Your task to perform on an android device: turn off sleep mode Image 0: 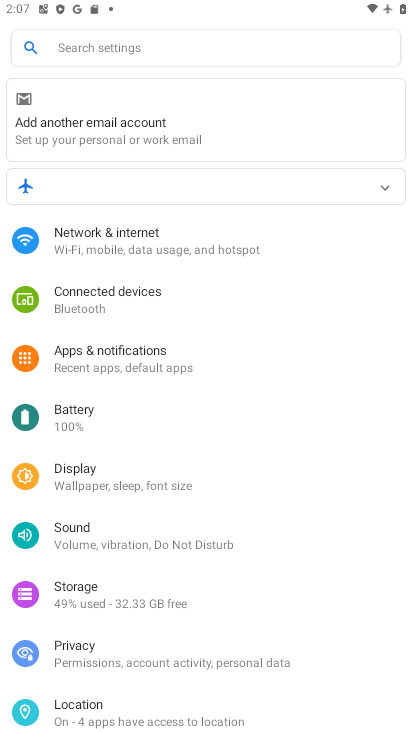
Step 0: press home button
Your task to perform on an android device: turn off sleep mode Image 1: 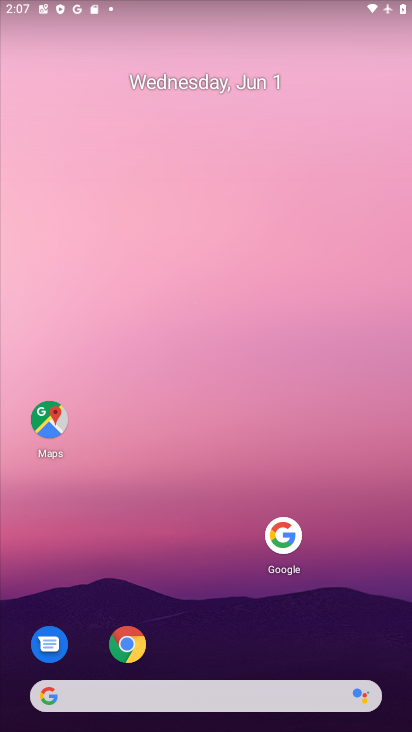
Step 1: drag from (164, 693) to (300, 106)
Your task to perform on an android device: turn off sleep mode Image 2: 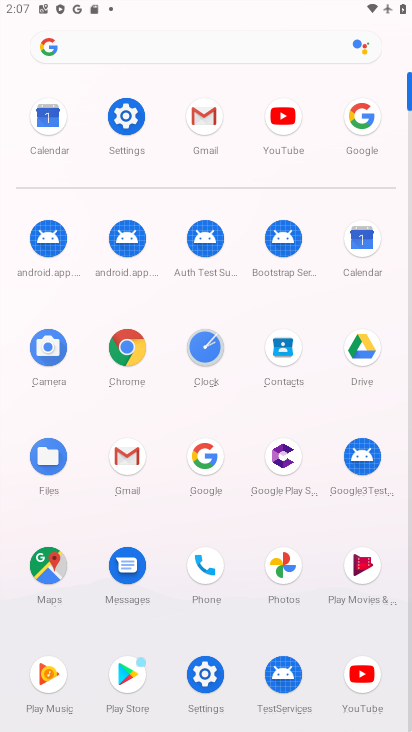
Step 2: click (136, 125)
Your task to perform on an android device: turn off sleep mode Image 3: 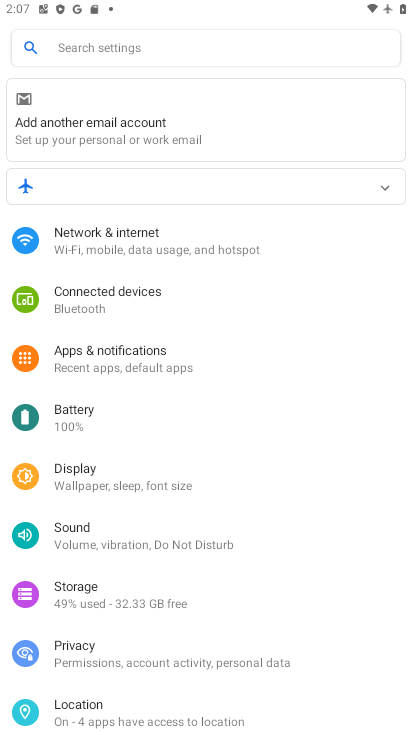
Step 3: click (127, 346)
Your task to perform on an android device: turn off sleep mode Image 4: 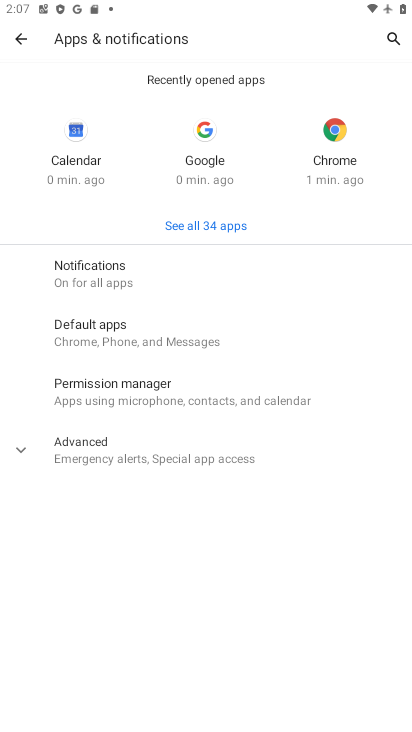
Step 4: click (24, 39)
Your task to perform on an android device: turn off sleep mode Image 5: 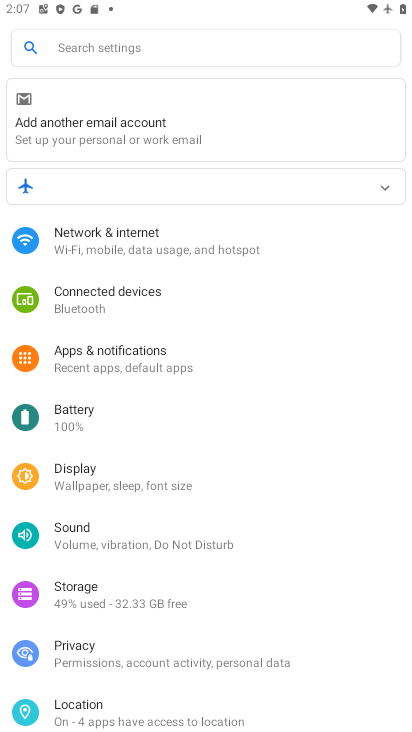
Step 5: click (117, 484)
Your task to perform on an android device: turn off sleep mode Image 6: 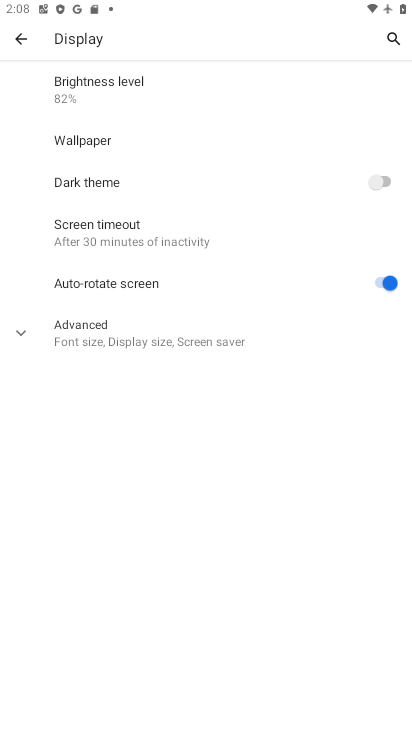
Step 6: task complete